Your task to perform on an android device: Open Yahoo.com Image 0: 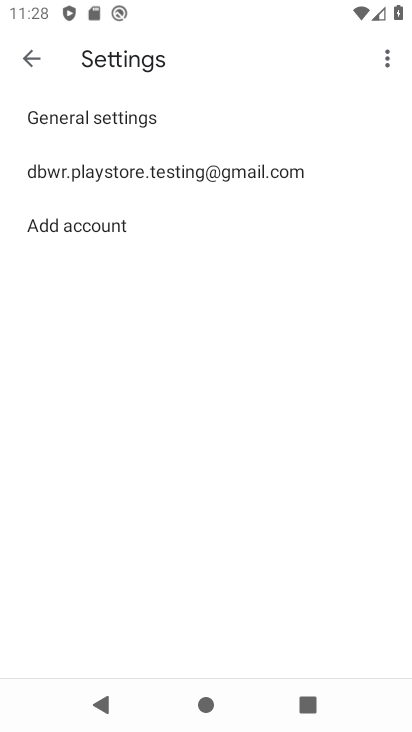
Step 0: press home button
Your task to perform on an android device: Open Yahoo.com Image 1: 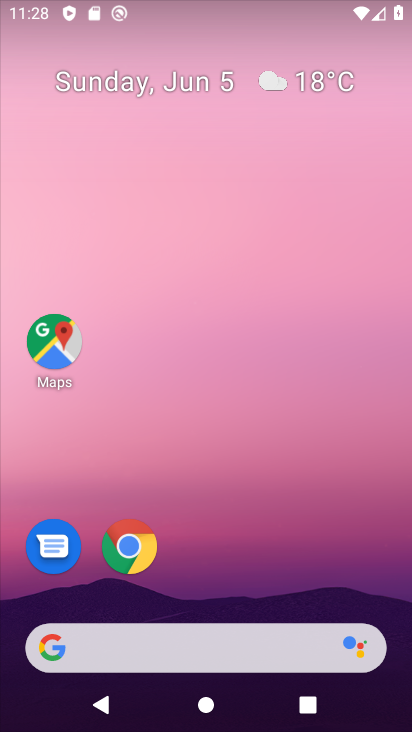
Step 1: click (205, 642)
Your task to perform on an android device: Open Yahoo.com Image 2: 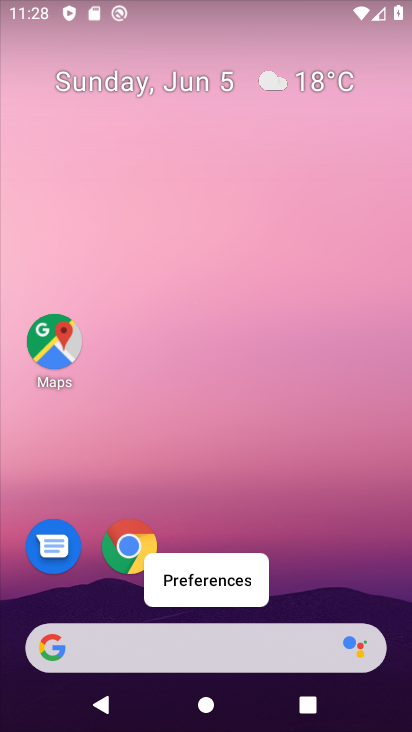
Step 2: click (176, 647)
Your task to perform on an android device: Open Yahoo.com Image 3: 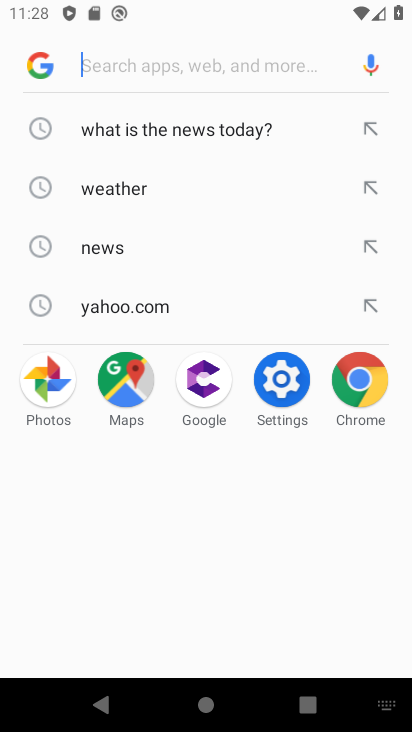
Step 3: click (171, 56)
Your task to perform on an android device: Open Yahoo.com Image 4: 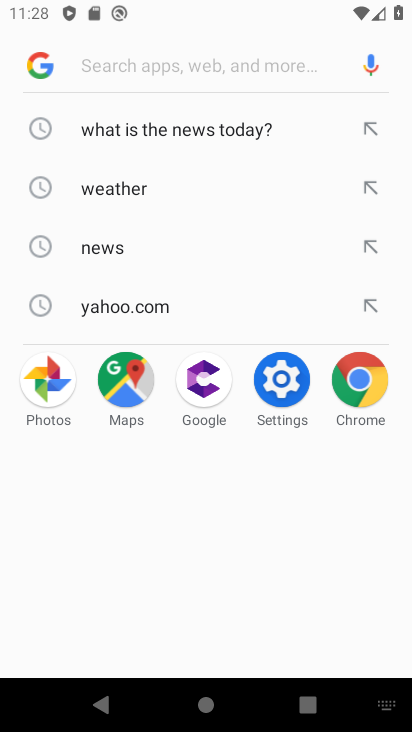
Step 4: type "Yahoo.com"
Your task to perform on an android device: Open Yahoo.com Image 5: 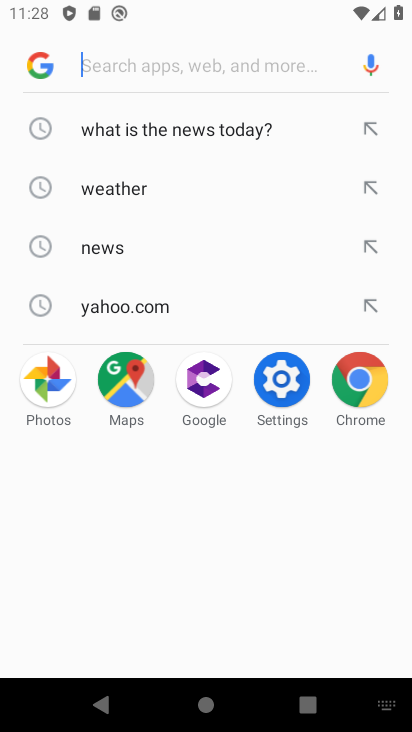
Step 5: click (130, 71)
Your task to perform on an android device: Open Yahoo.com Image 6: 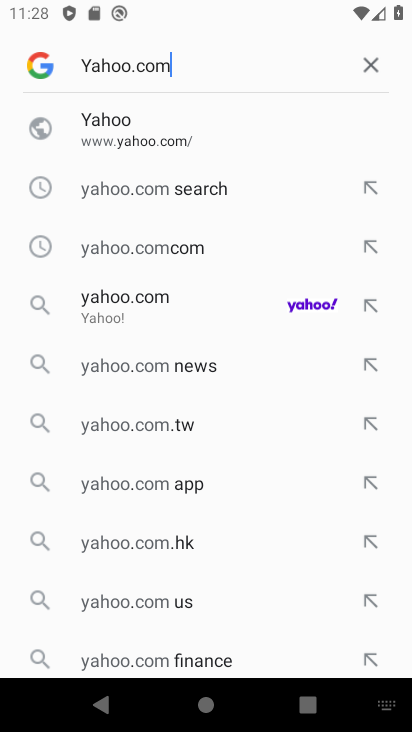
Step 6: click (135, 65)
Your task to perform on an android device: Open Yahoo.com Image 7: 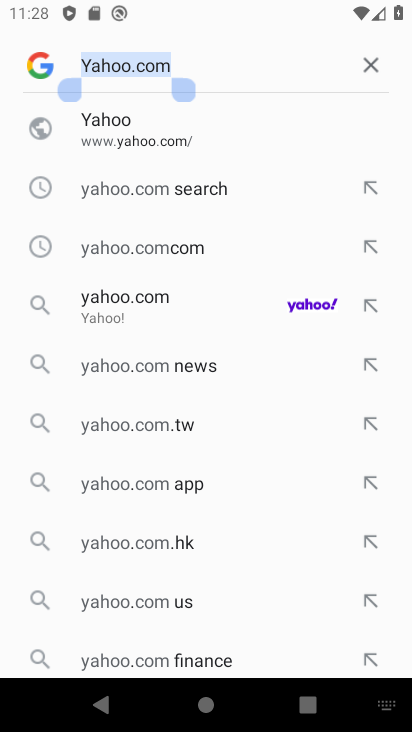
Step 7: click (117, 142)
Your task to perform on an android device: Open Yahoo.com Image 8: 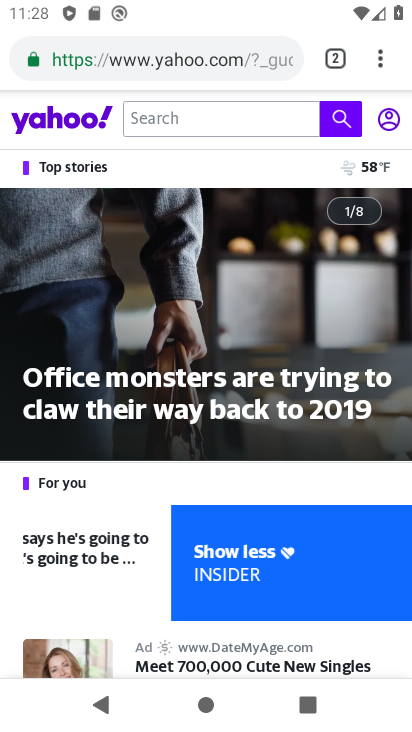
Step 8: task complete